Your task to perform on an android device: Search for vegetarian restaurants on Maps Image 0: 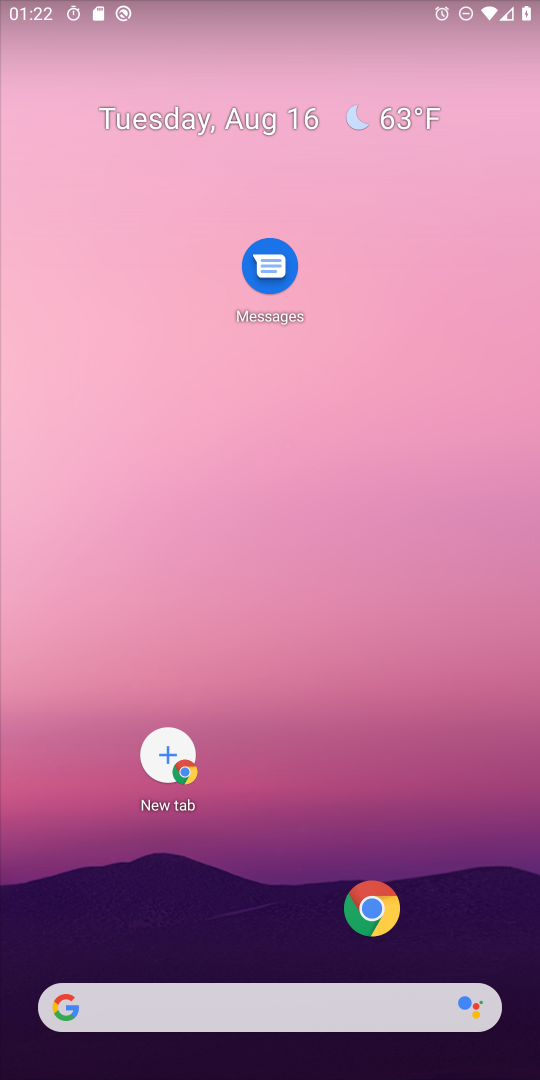
Step 0: drag from (231, 883) to (157, 646)
Your task to perform on an android device: Search for vegetarian restaurants on Maps Image 1: 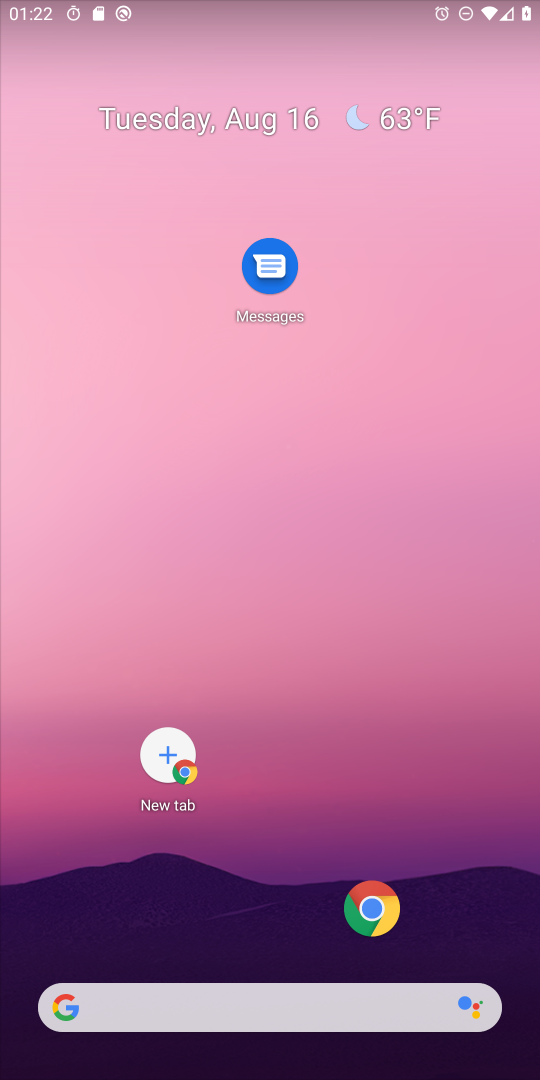
Step 1: drag from (269, 943) to (237, 129)
Your task to perform on an android device: Search for vegetarian restaurants on Maps Image 2: 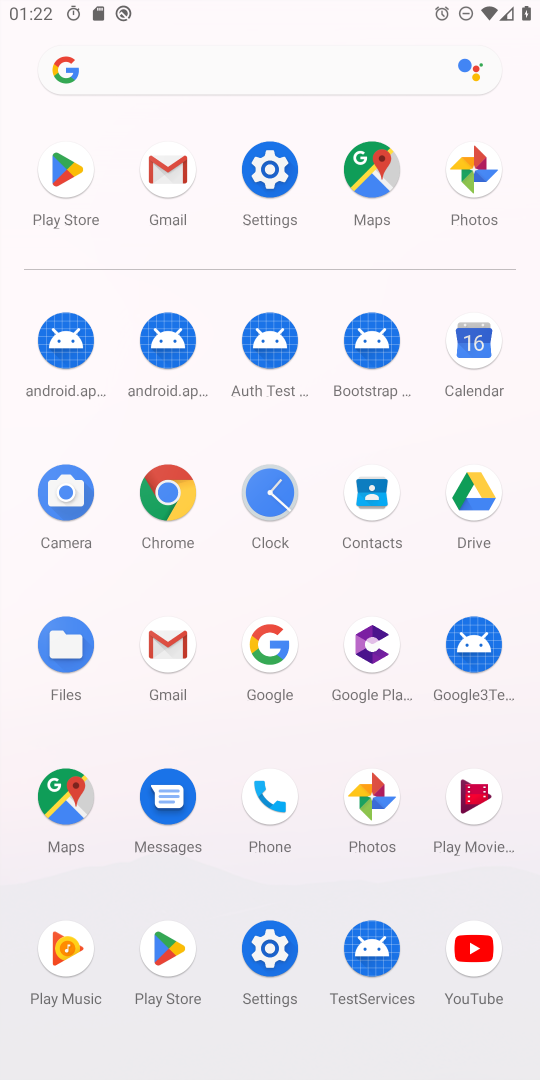
Step 2: click (375, 291)
Your task to perform on an android device: Search for vegetarian restaurants on Maps Image 3: 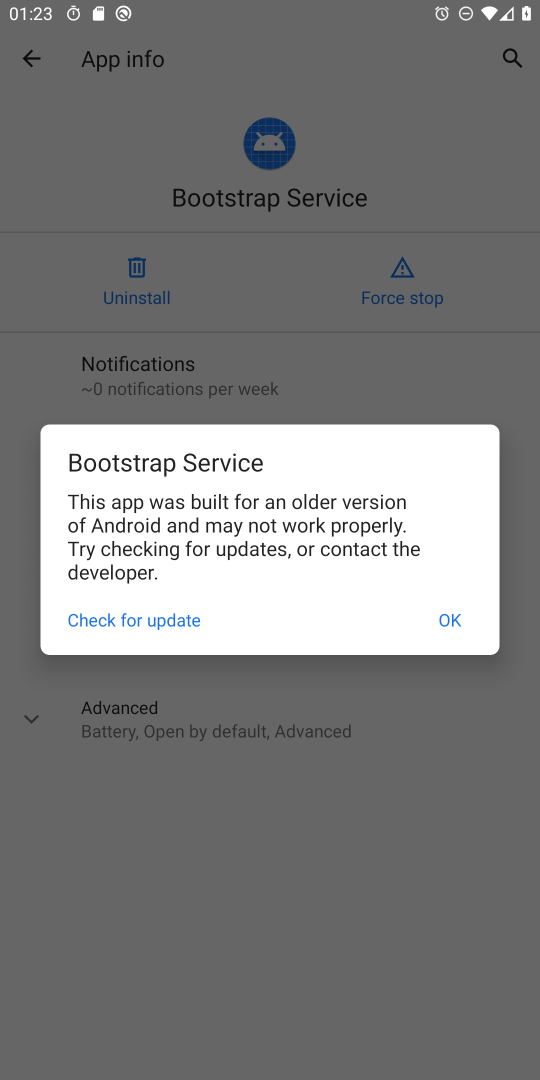
Step 3: click (468, 624)
Your task to perform on an android device: Search for vegetarian restaurants on Maps Image 4: 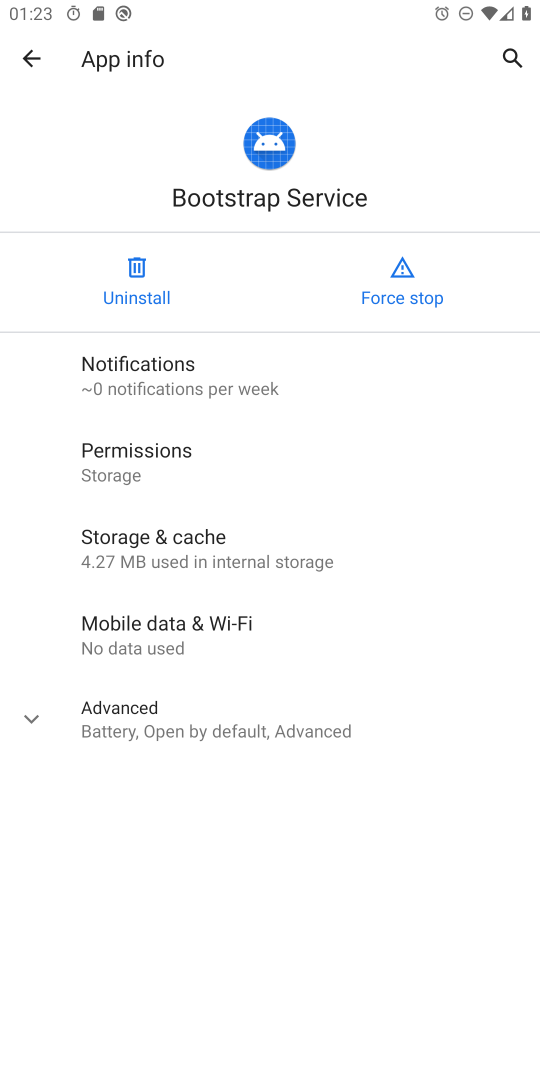
Step 4: press home button
Your task to perform on an android device: Search for vegetarian restaurants on Maps Image 5: 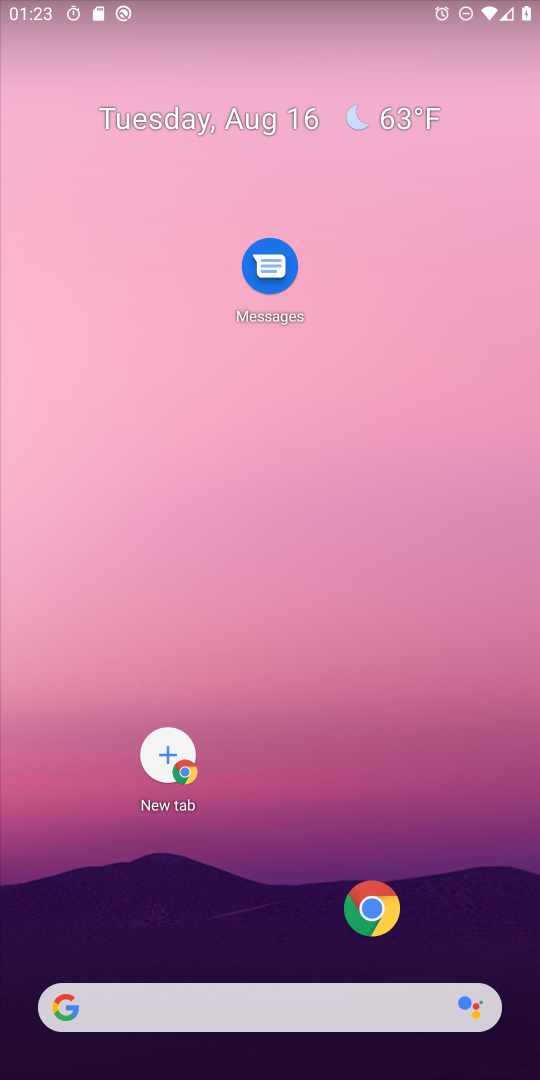
Step 5: drag from (199, 901) to (385, 322)
Your task to perform on an android device: Search for vegetarian restaurants on Maps Image 6: 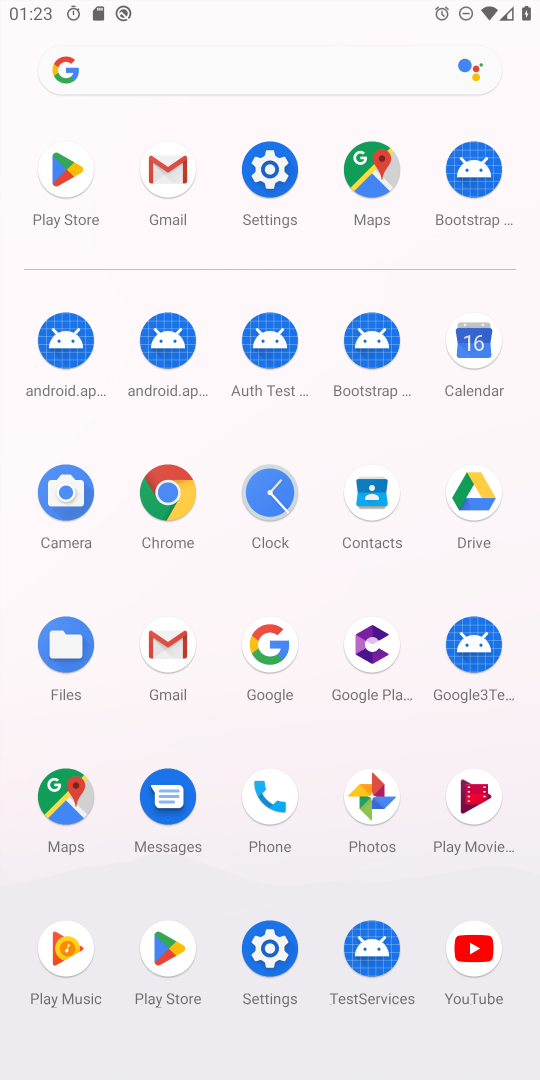
Step 6: click (352, 159)
Your task to perform on an android device: Search for vegetarian restaurants on Maps Image 7: 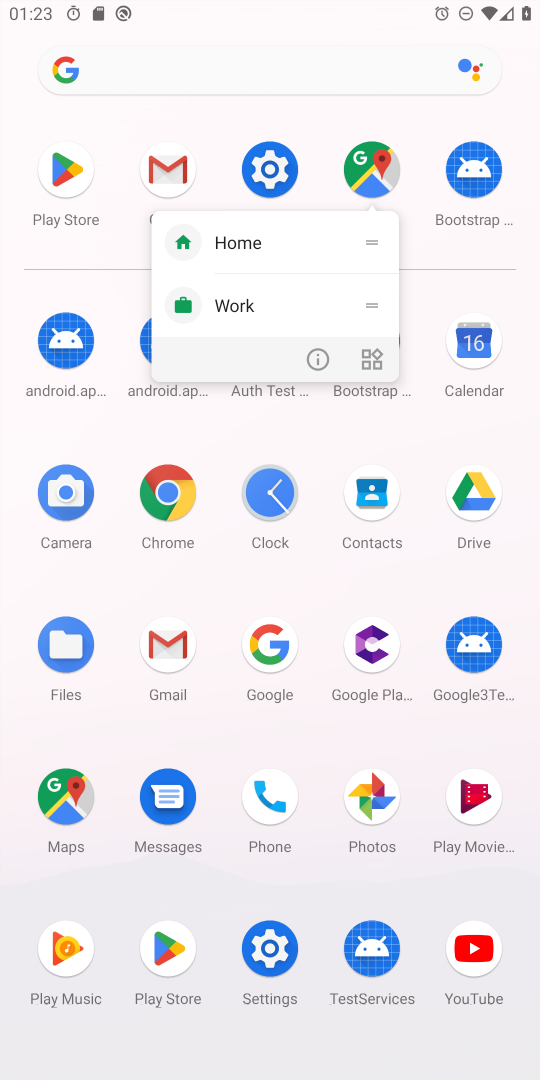
Step 7: click (352, 159)
Your task to perform on an android device: Search for vegetarian restaurants on Maps Image 8: 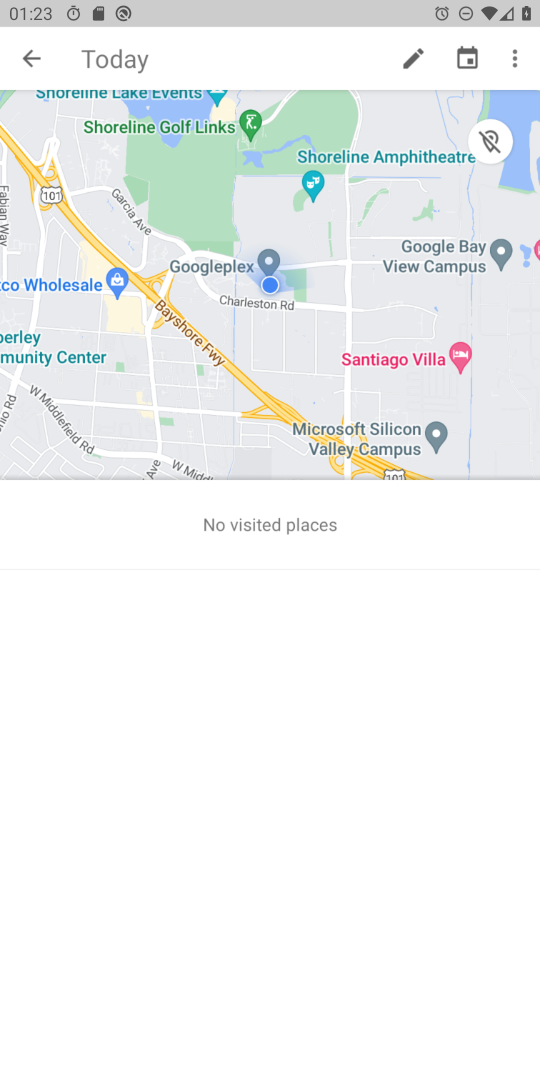
Step 8: click (352, 159)
Your task to perform on an android device: Search for vegetarian restaurants on Maps Image 9: 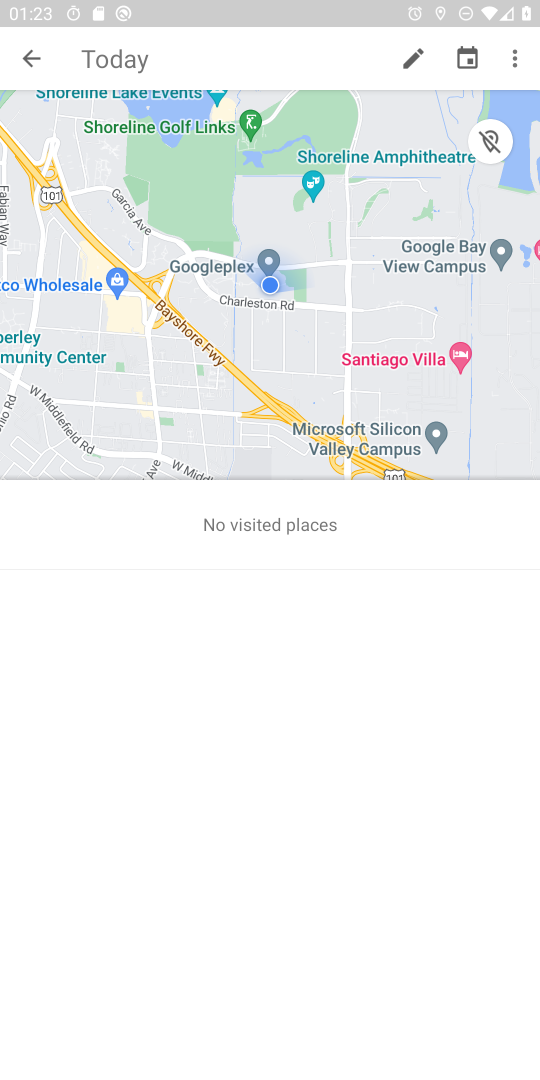
Step 9: click (18, 55)
Your task to perform on an android device: Search for vegetarian restaurants on Maps Image 10: 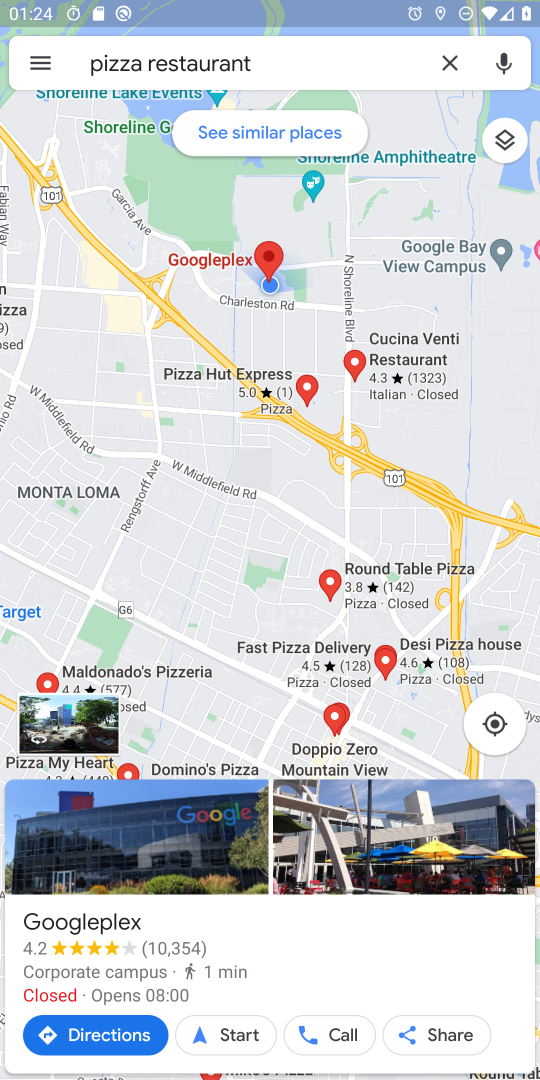
Step 10: click (440, 61)
Your task to perform on an android device: Search for vegetarian restaurants on Maps Image 11: 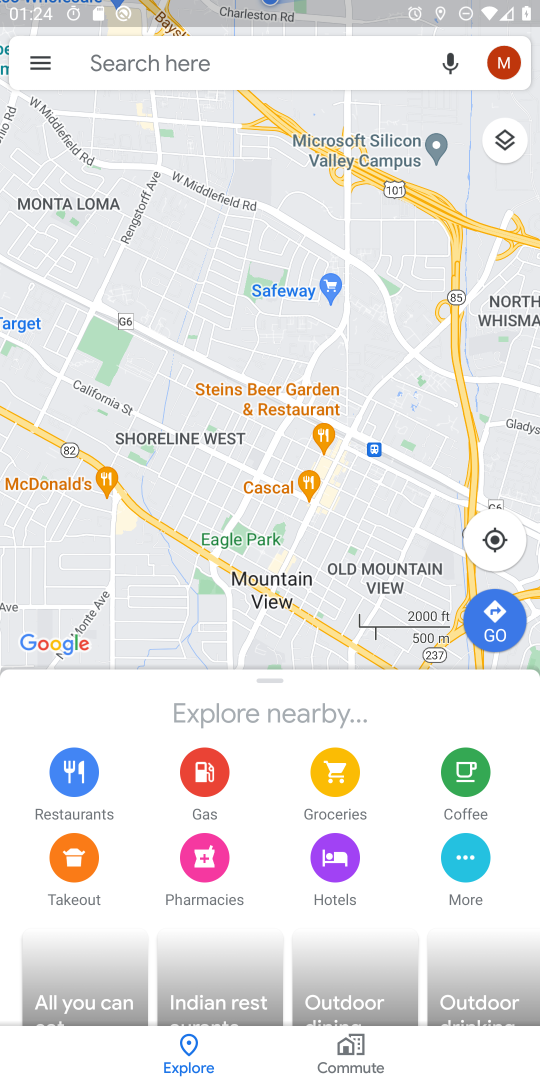
Step 11: click (378, 63)
Your task to perform on an android device: Search for vegetarian restaurants on Maps Image 12: 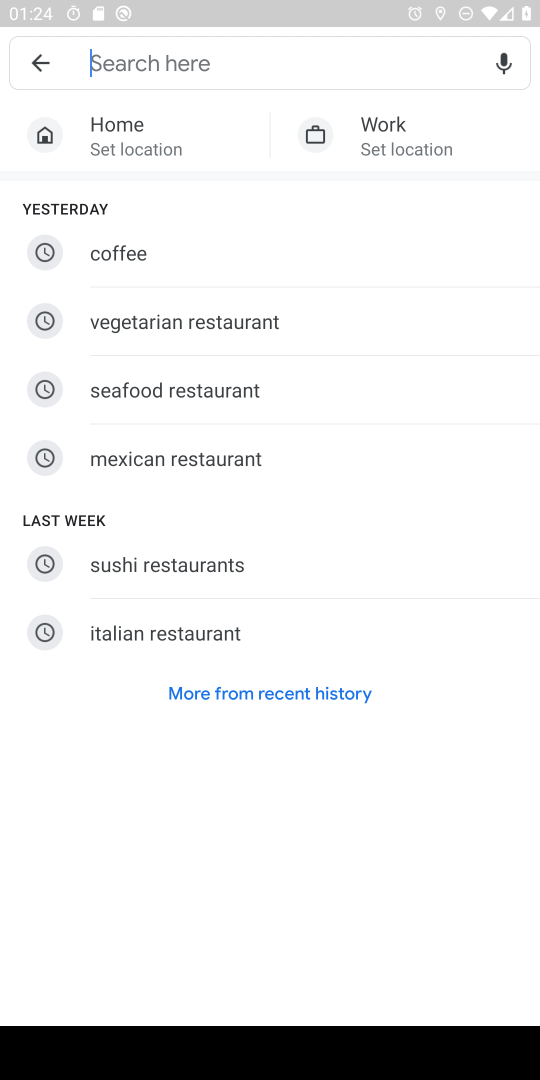
Step 12: click (152, 316)
Your task to perform on an android device: Search for vegetarian restaurants on Maps Image 13: 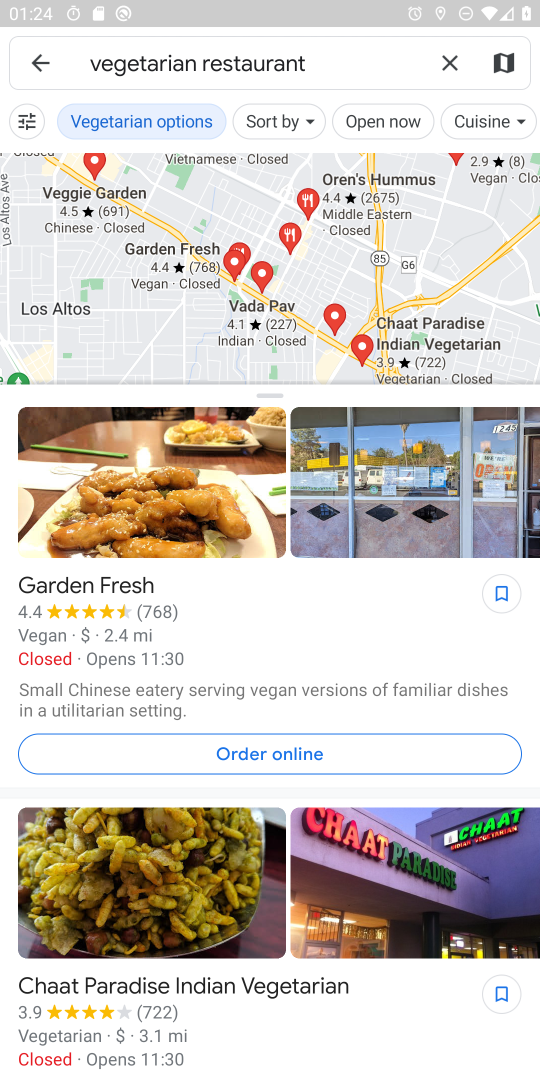
Step 13: task complete